Your task to perform on an android device: turn on javascript in the chrome app Image 0: 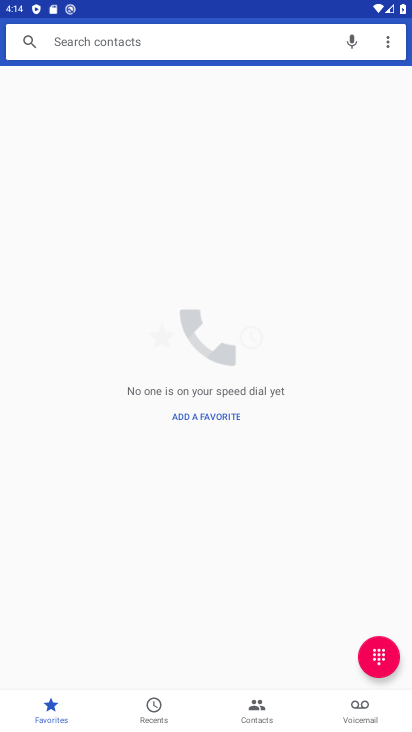
Step 0: press home button
Your task to perform on an android device: turn on javascript in the chrome app Image 1: 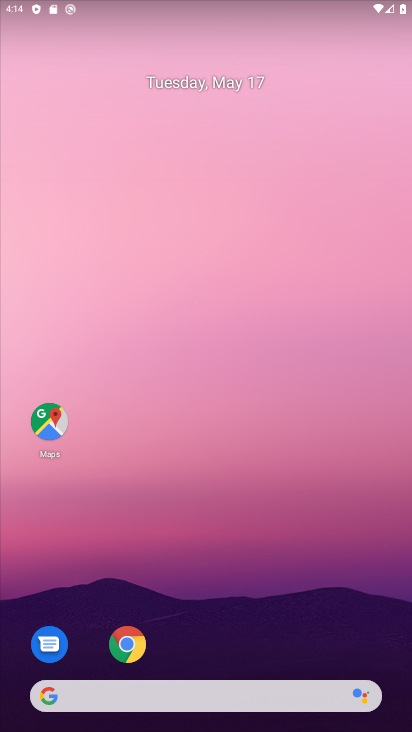
Step 1: drag from (225, 649) to (180, 114)
Your task to perform on an android device: turn on javascript in the chrome app Image 2: 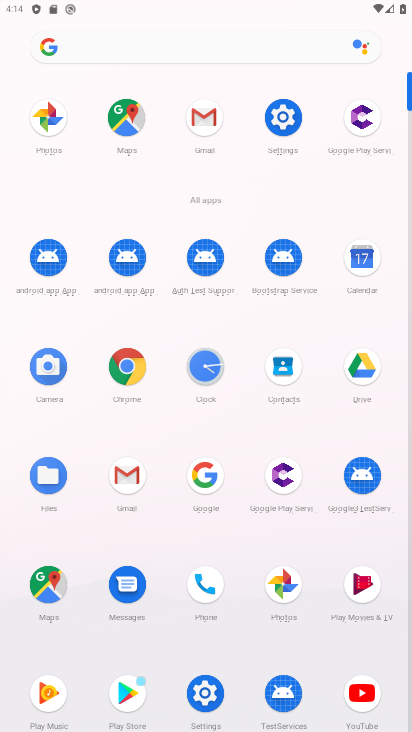
Step 2: click (129, 371)
Your task to perform on an android device: turn on javascript in the chrome app Image 3: 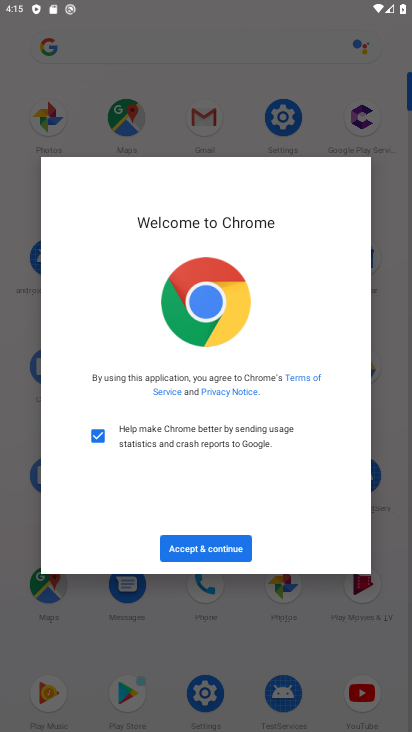
Step 3: click (235, 548)
Your task to perform on an android device: turn on javascript in the chrome app Image 4: 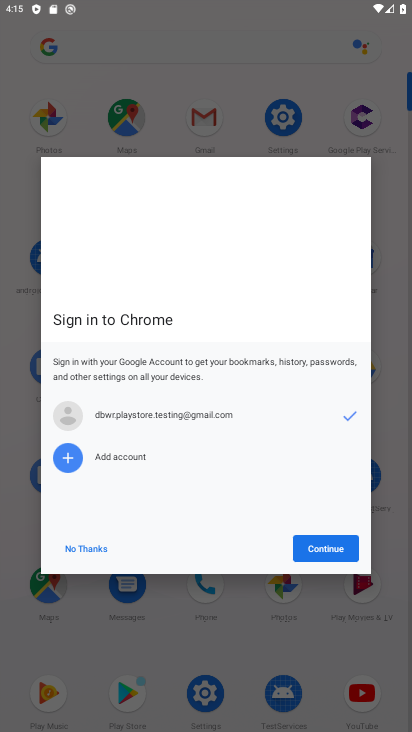
Step 4: click (322, 544)
Your task to perform on an android device: turn on javascript in the chrome app Image 5: 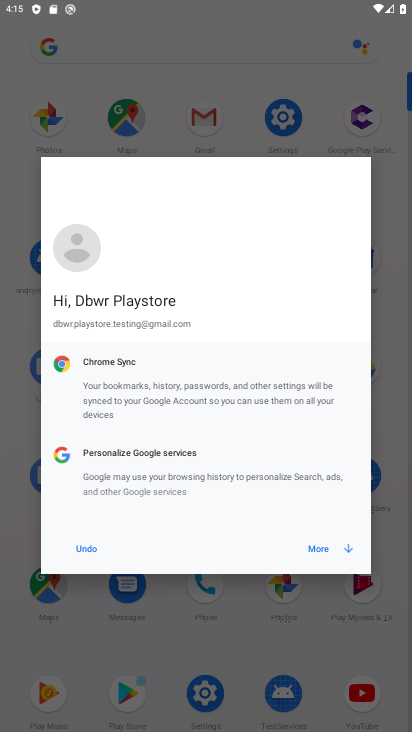
Step 5: click (322, 544)
Your task to perform on an android device: turn on javascript in the chrome app Image 6: 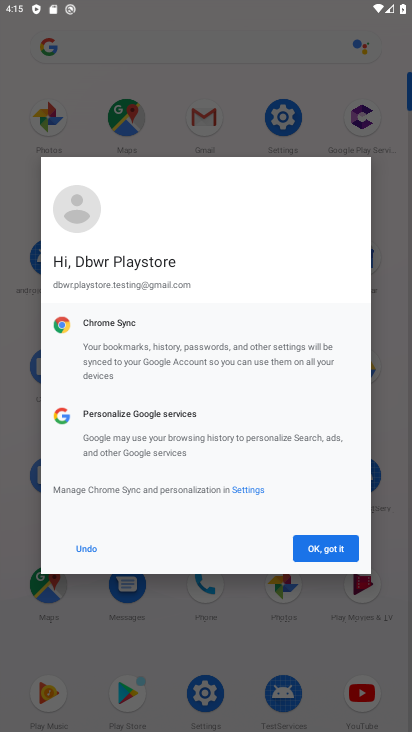
Step 6: click (322, 544)
Your task to perform on an android device: turn on javascript in the chrome app Image 7: 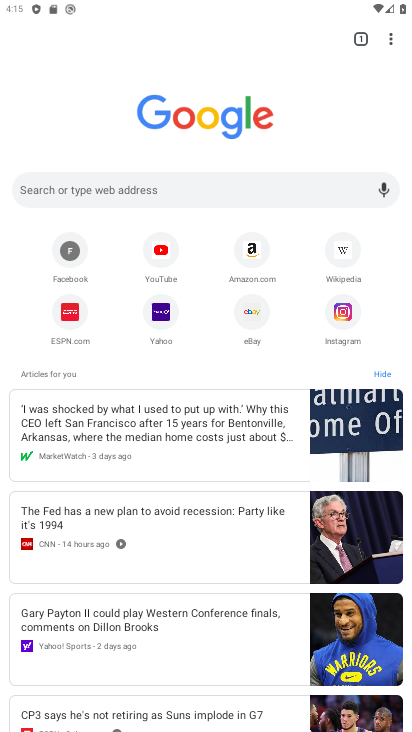
Step 7: drag from (390, 39) to (324, 324)
Your task to perform on an android device: turn on javascript in the chrome app Image 8: 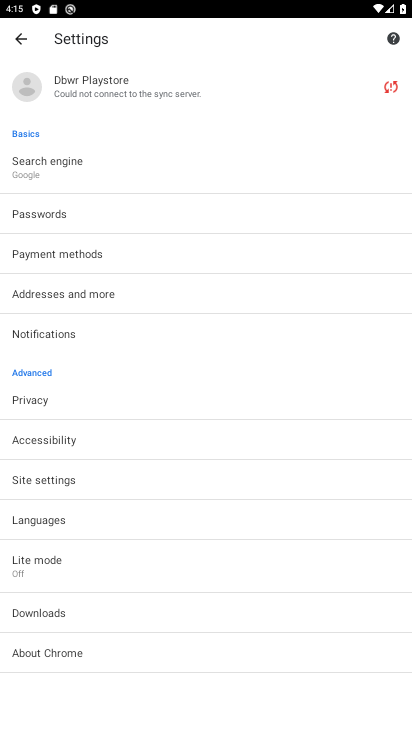
Step 8: click (45, 479)
Your task to perform on an android device: turn on javascript in the chrome app Image 9: 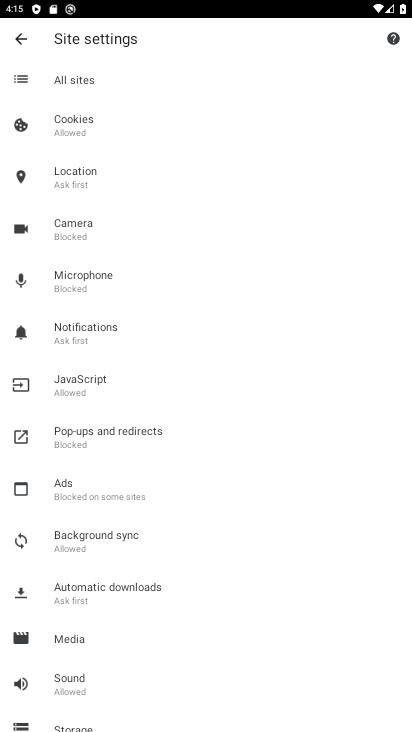
Step 9: click (65, 374)
Your task to perform on an android device: turn on javascript in the chrome app Image 10: 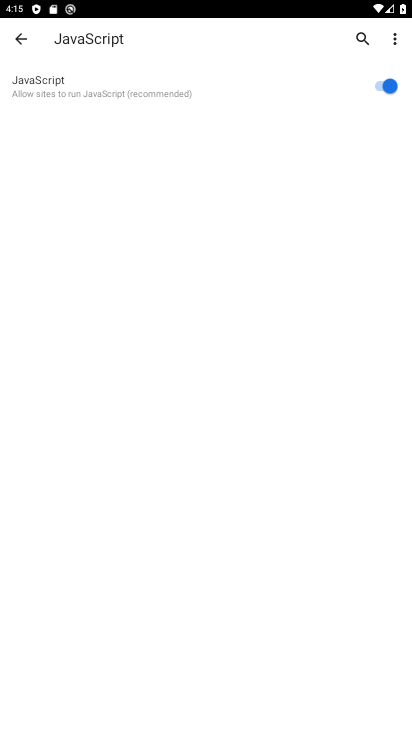
Step 10: task complete